Your task to perform on an android device: What's on my calendar today? Image 0: 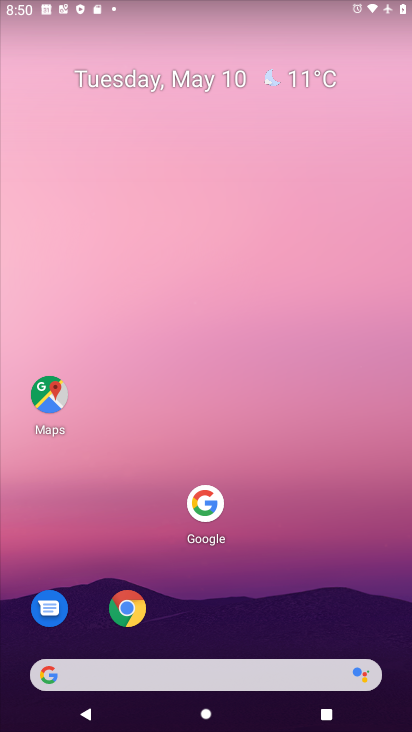
Step 0: drag from (163, 663) to (293, 494)
Your task to perform on an android device: What's on my calendar today? Image 1: 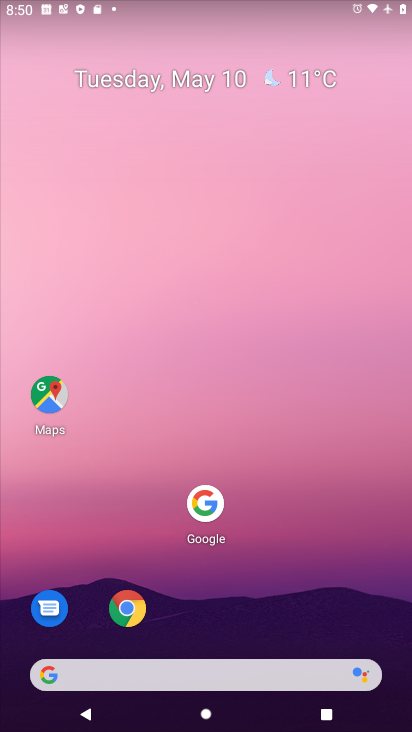
Step 1: drag from (194, 678) to (260, 177)
Your task to perform on an android device: What's on my calendar today? Image 2: 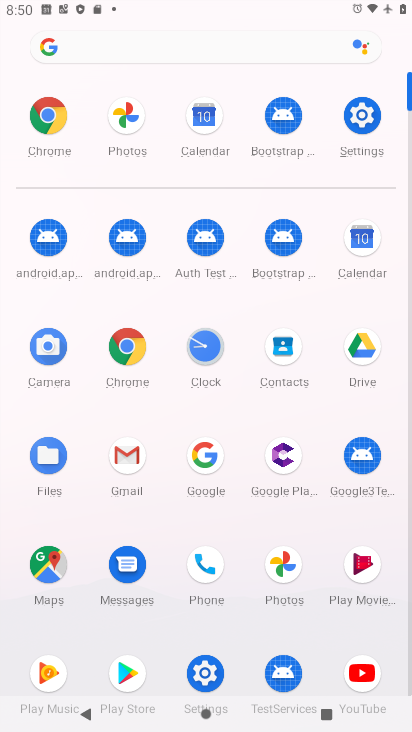
Step 2: click (214, 124)
Your task to perform on an android device: What's on my calendar today? Image 3: 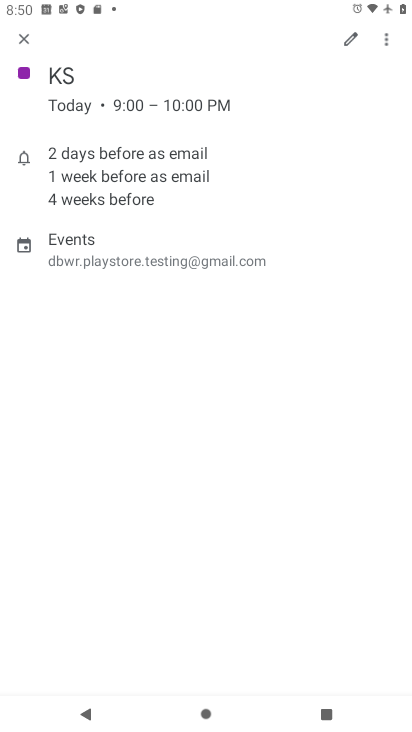
Step 3: click (25, 36)
Your task to perform on an android device: What's on my calendar today? Image 4: 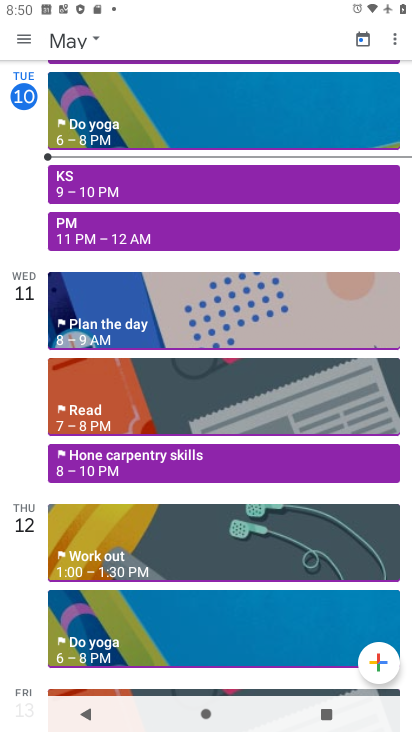
Step 4: click (173, 238)
Your task to perform on an android device: What's on my calendar today? Image 5: 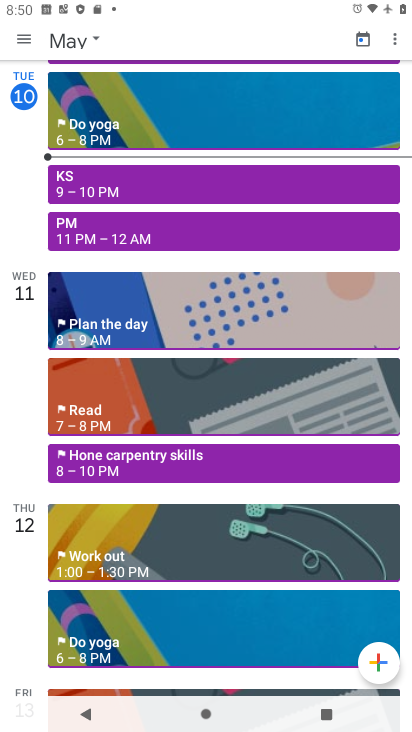
Step 5: click (129, 232)
Your task to perform on an android device: What's on my calendar today? Image 6: 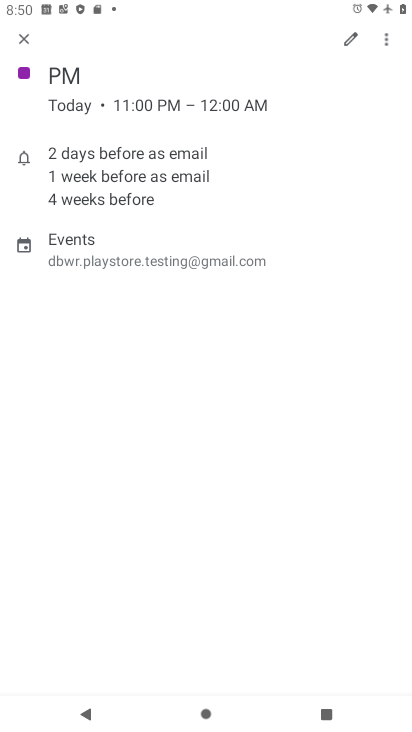
Step 6: task complete